Your task to perform on an android device: change text size in settings app Image 0: 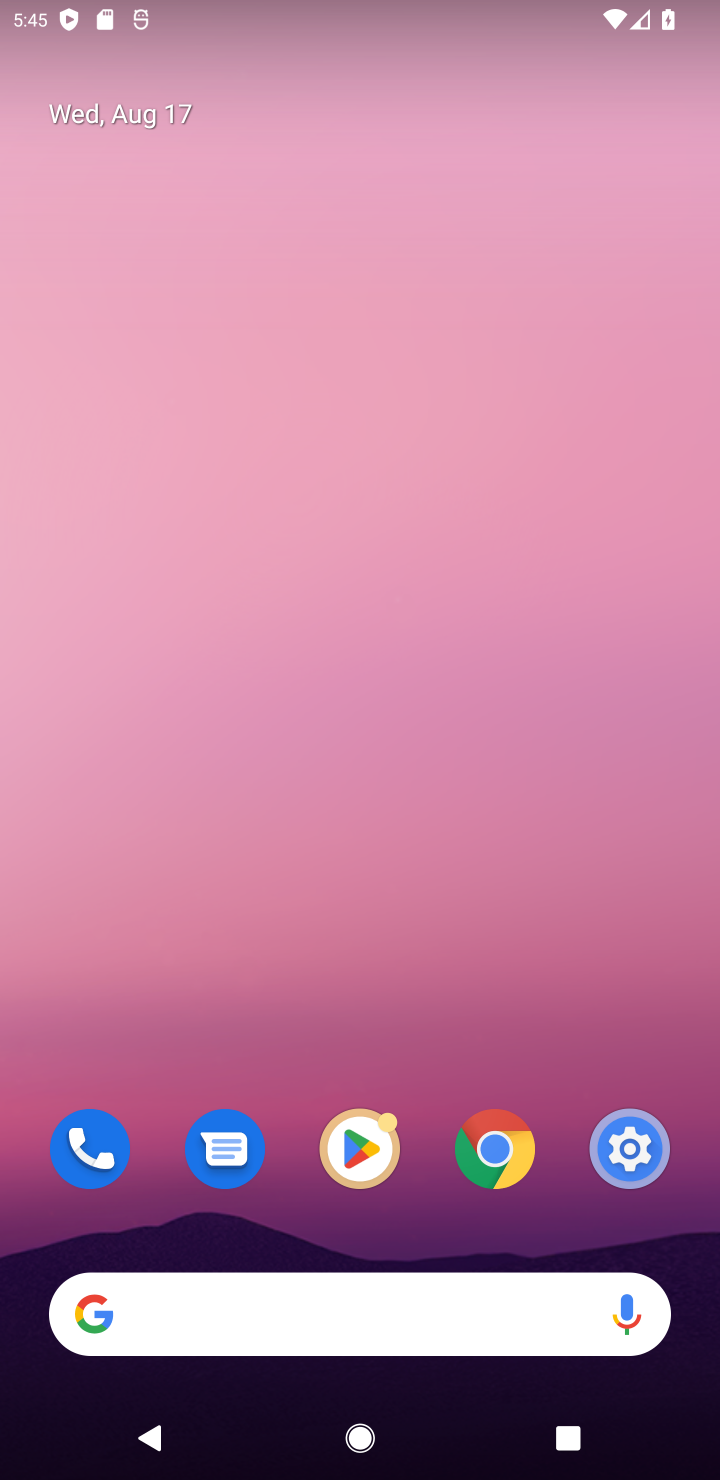
Step 0: click (615, 1172)
Your task to perform on an android device: change text size in settings app Image 1: 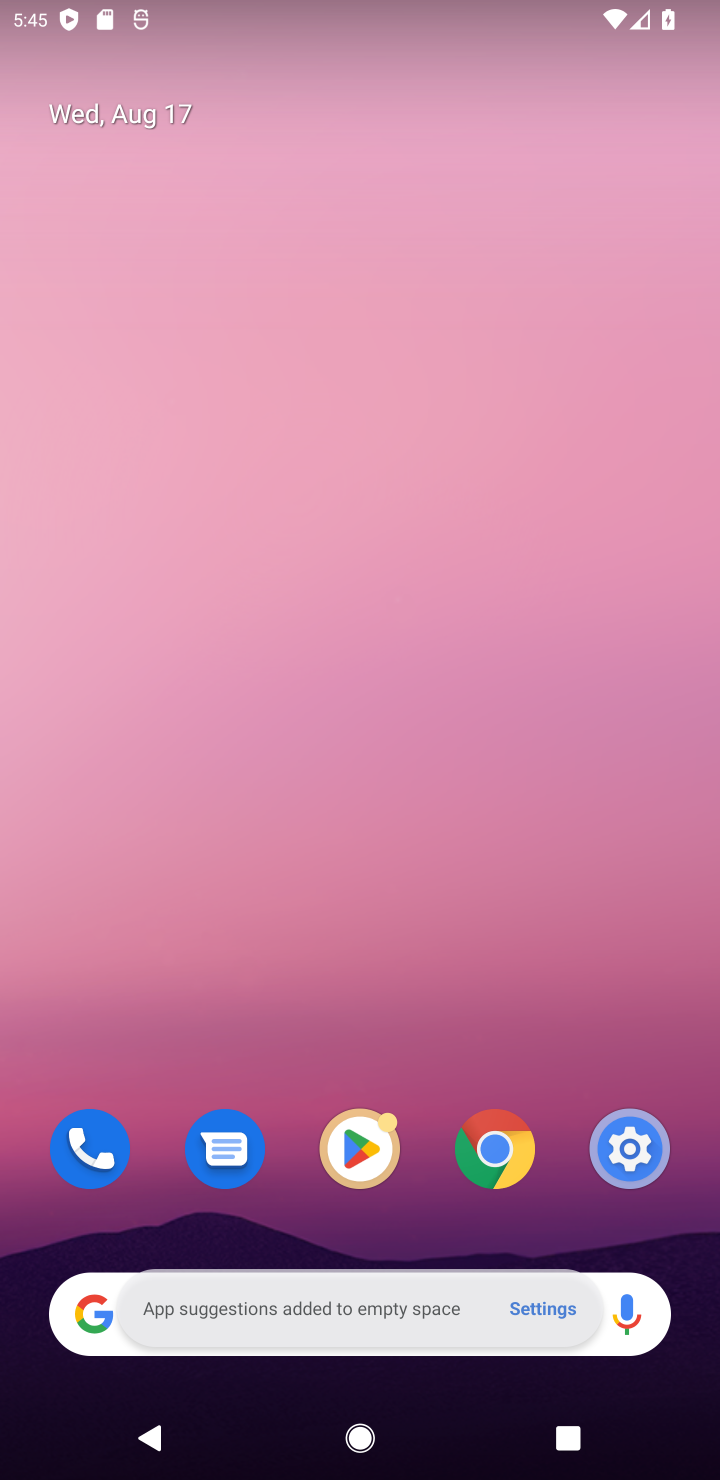
Step 1: click (654, 1148)
Your task to perform on an android device: change text size in settings app Image 2: 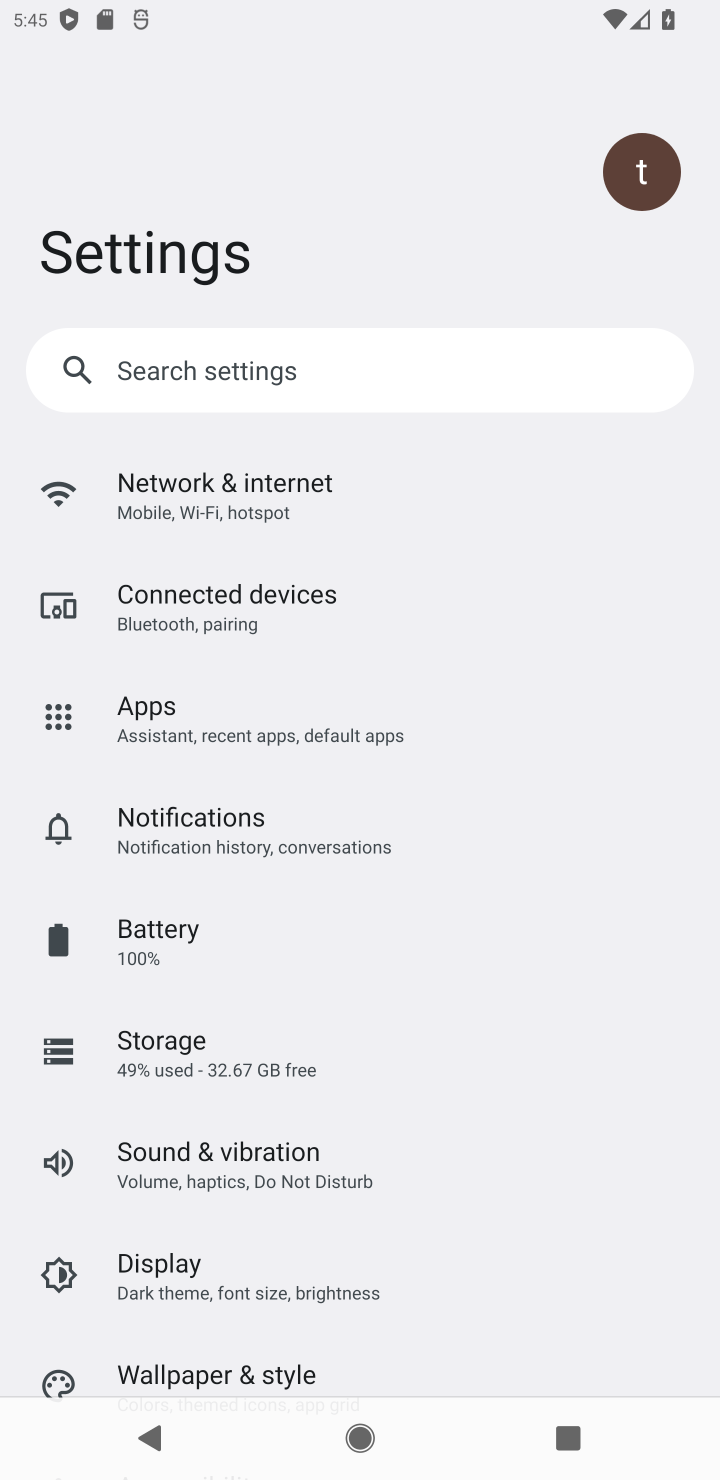
Step 2: click (179, 1258)
Your task to perform on an android device: change text size in settings app Image 3: 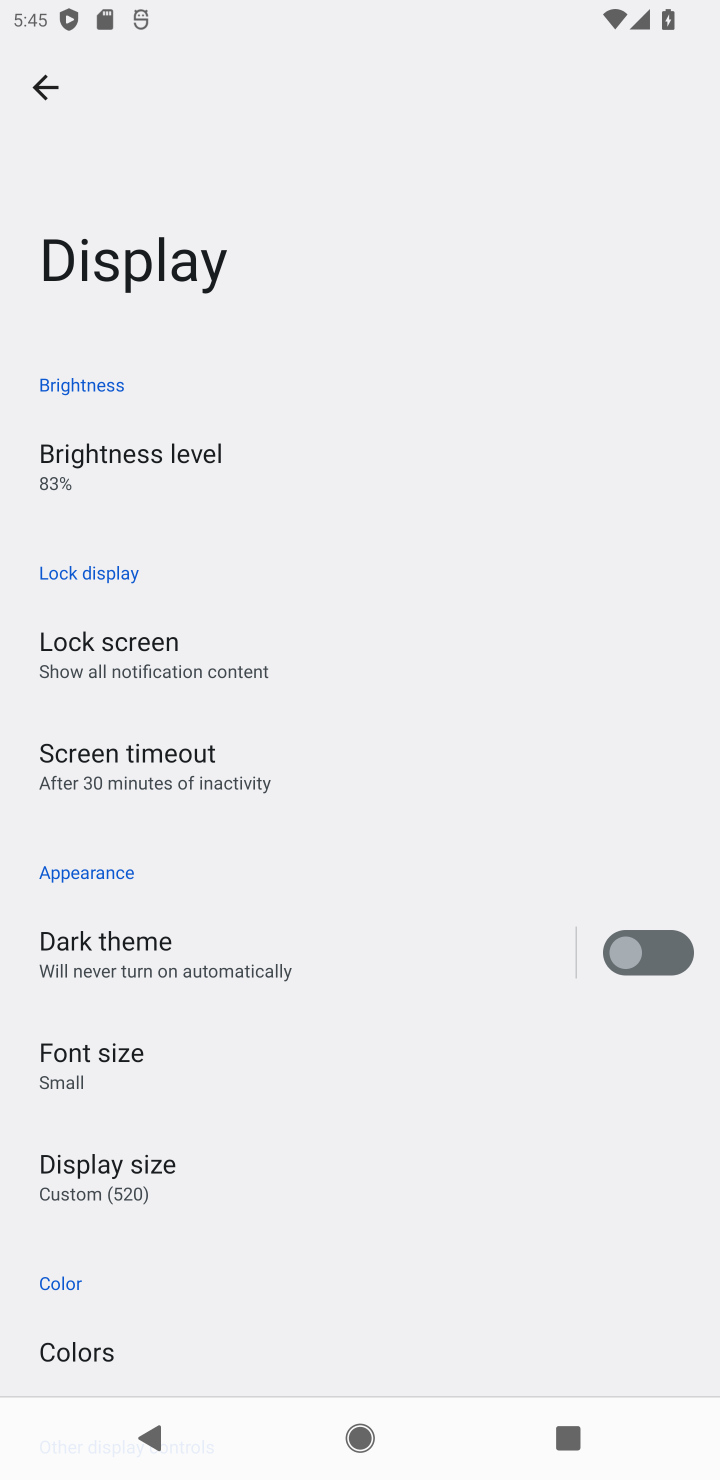
Step 3: click (115, 1054)
Your task to perform on an android device: change text size in settings app Image 4: 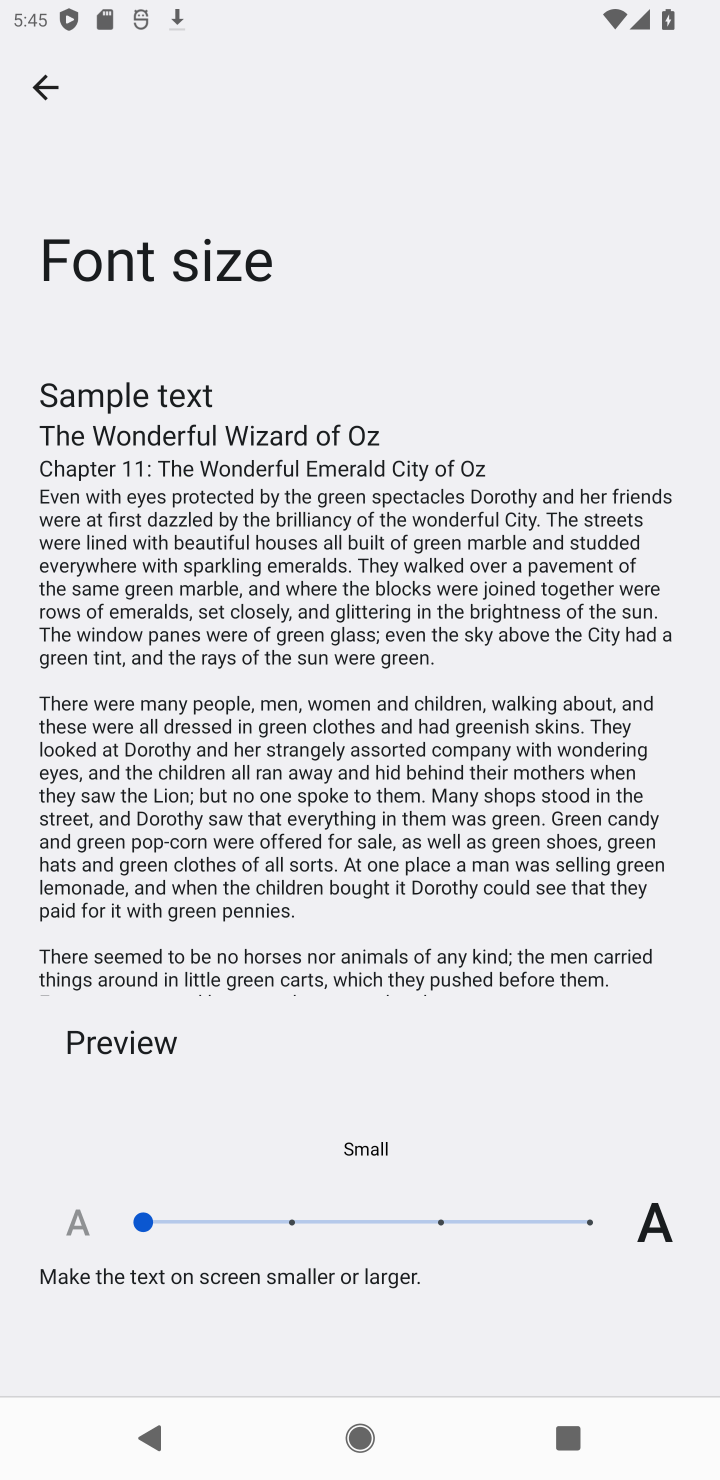
Step 4: click (281, 1206)
Your task to perform on an android device: change text size in settings app Image 5: 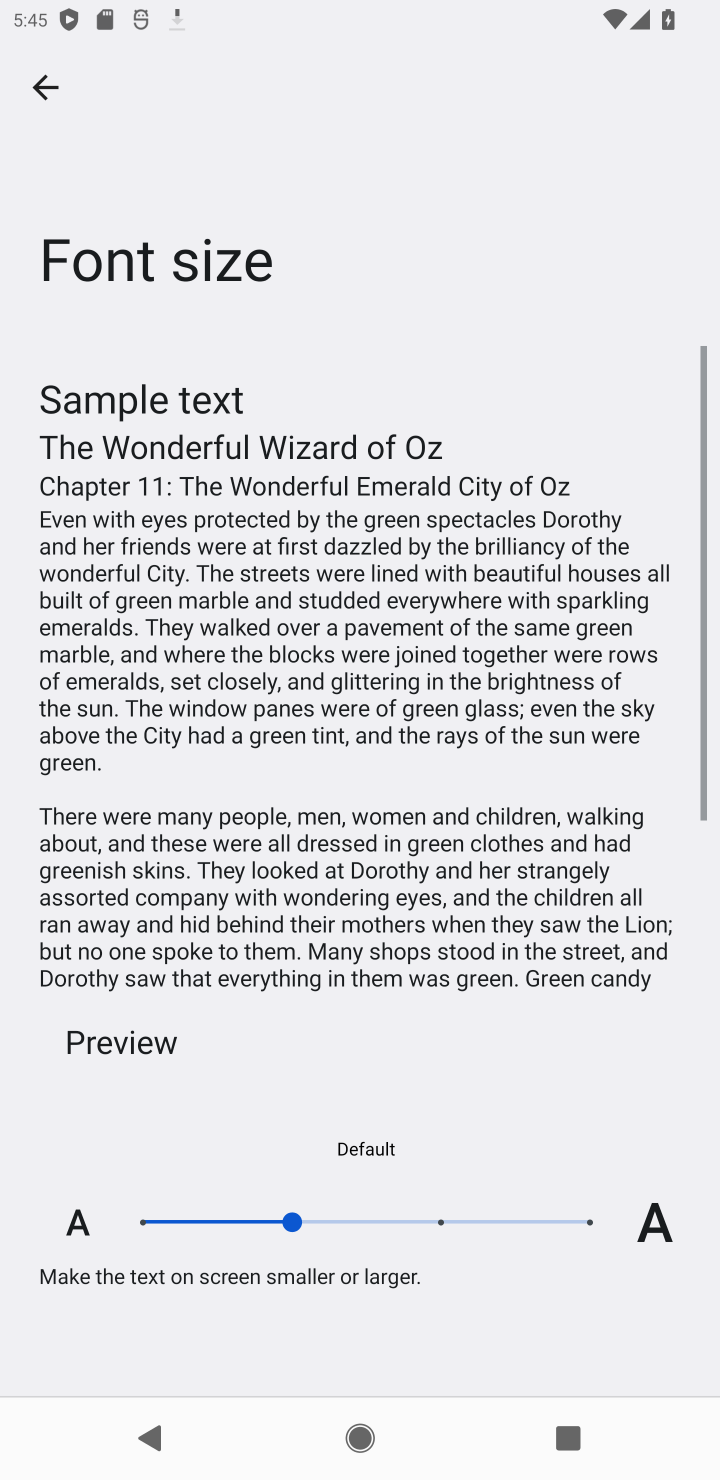
Step 5: task complete